Your task to perform on an android device: refresh tabs in the chrome app Image 0: 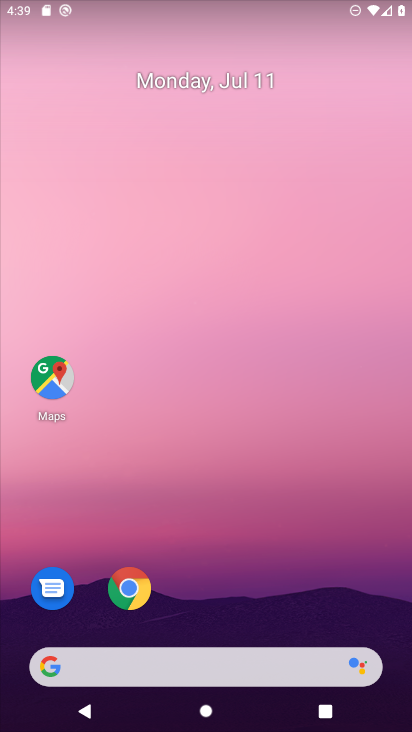
Step 0: drag from (222, 626) to (270, 46)
Your task to perform on an android device: refresh tabs in the chrome app Image 1: 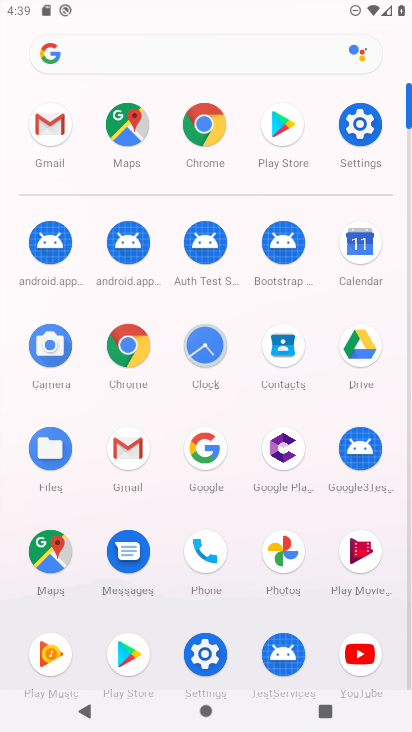
Step 1: click (201, 127)
Your task to perform on an android device: refresh tabs in the chrome app Image 2: 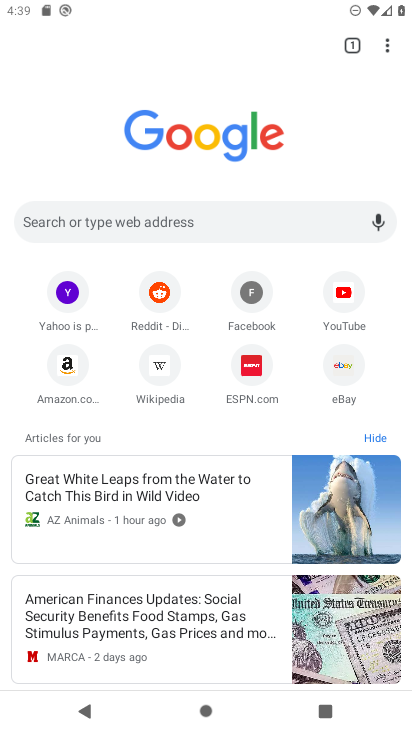
Step 2: click (385, 48)
Your task to perform on an android device: refresh tabs in the chrome app Image 3: 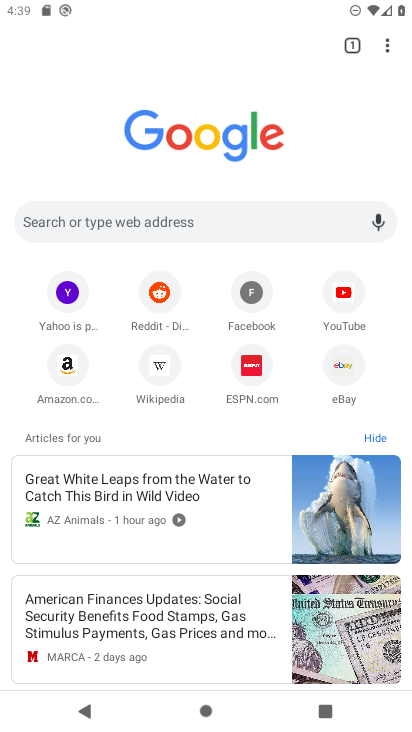
Step 3: task complete